Your task to perform on an android device: change the clock style Image 0: 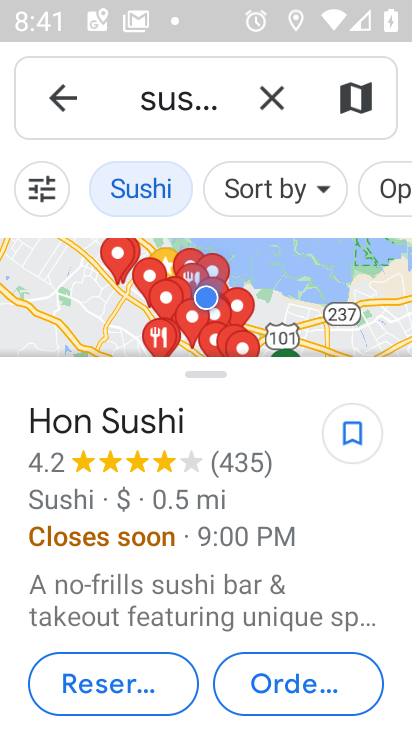
Step 0: press home button
Your task to perform on an android device: change the clock style Image 1: 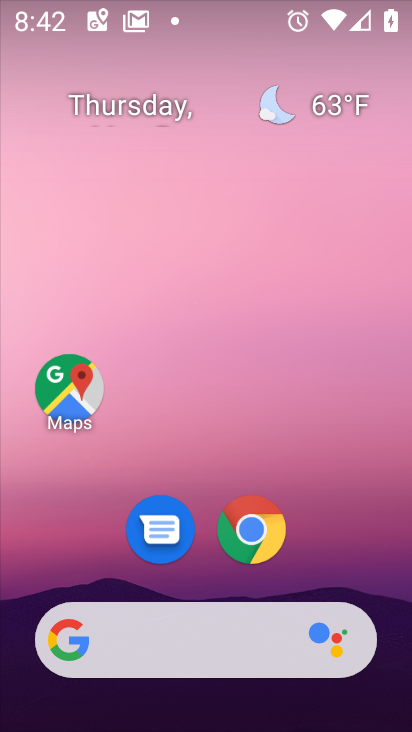
Step 1: drag from (195, 404) to (195, 158)
Your task to perform on an android device: change the clock style Image 2: 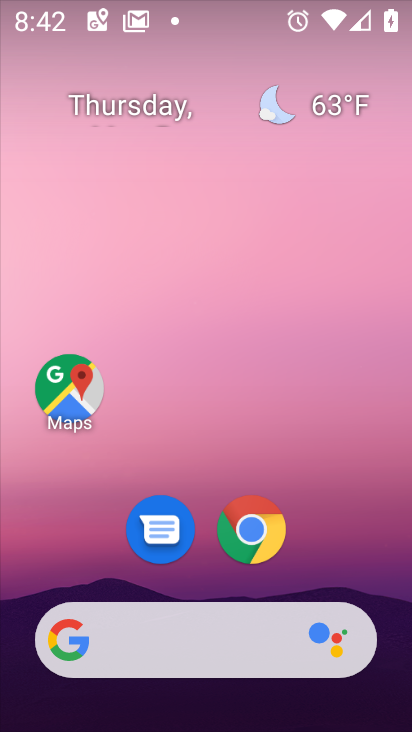
Step 2: drag from (210, 579) to (213, 154)
Your task to perform on an android device: change the clock style Image 3: 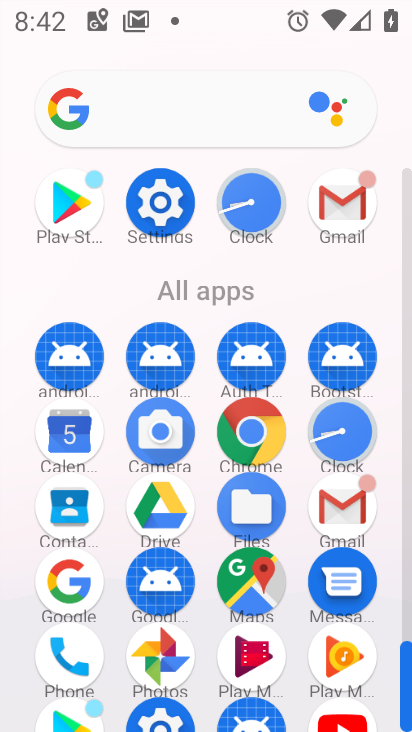
Step 3: click (317, 434)
Your task to perform on an android device: change the clock style Image 4: 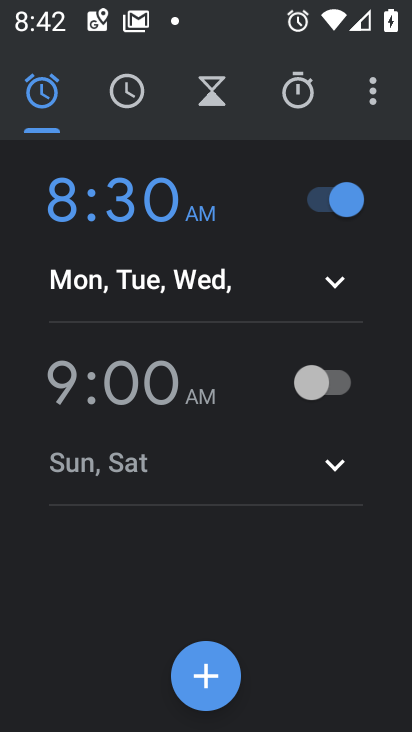
Step 4: click (363, 93)
Your task to perform on an android device: change the clock style Image 5: 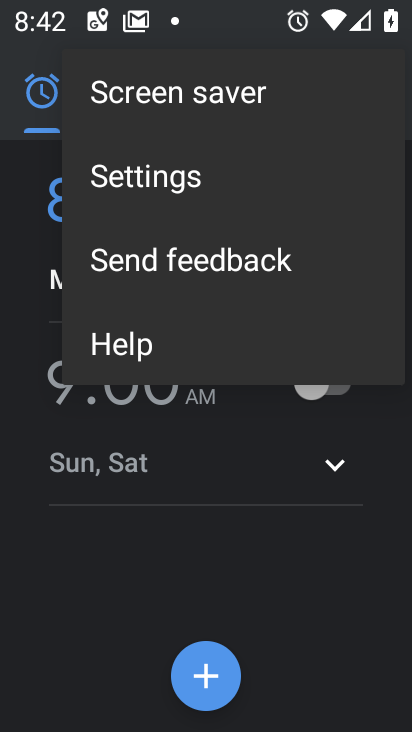
Step 5: click (168, 188)
Your task to perform on an android device: change the clock style Image 6: 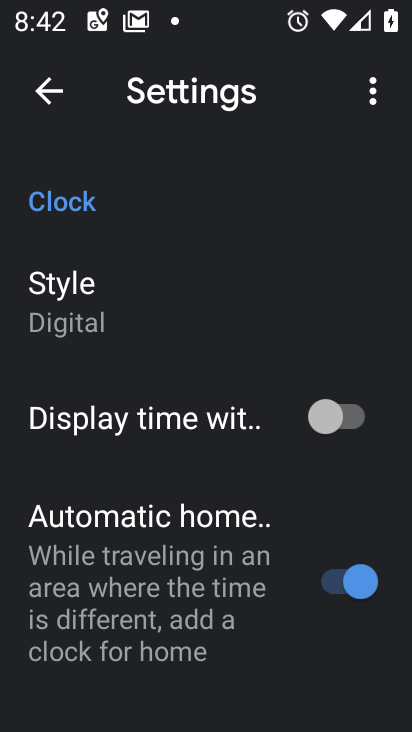
Step 6: click (83, 322)
Your task to perform on an android device: change the clock style Image 7: 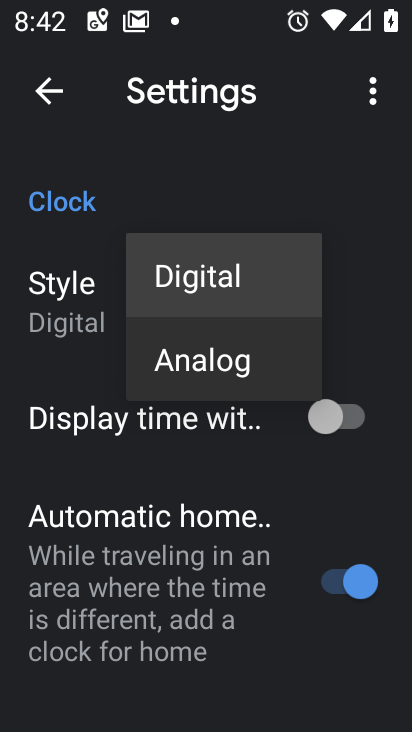
Step 7: click (205, 356)
Your task to perform on an android device: change the clock style Image 8: 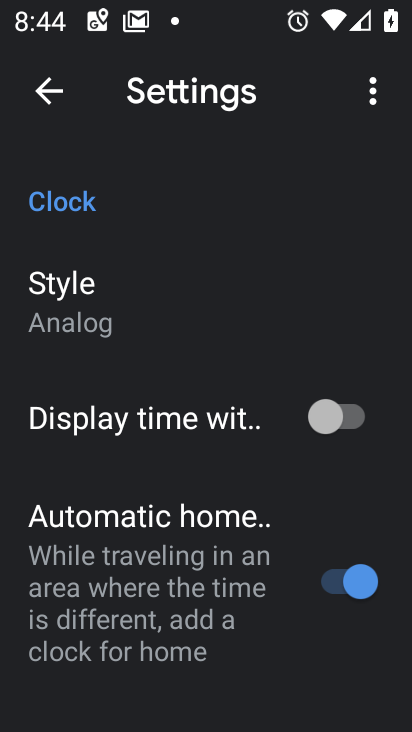
Step 8: task complete